Your task to perform on an android device: Open settings on Google Maps Image 0: 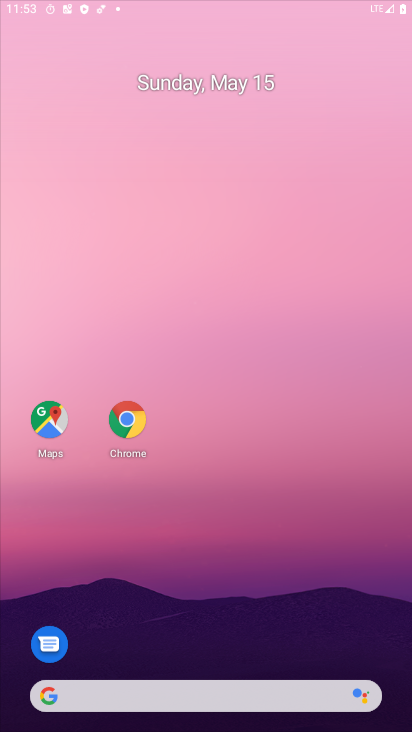
Step 0: click (306, 80)
Your task to perform on an android device: Open settings on Google Maps Image 1: 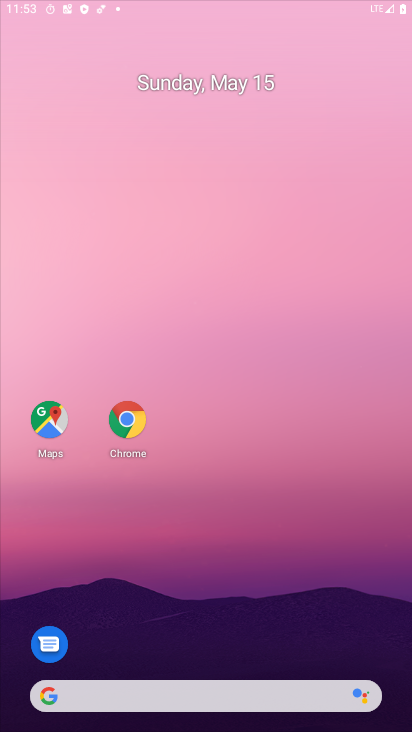
Step 1: drag from (202, 627) to (307, 124)
Your task to perform on an android device: Open settings on Google Maps Image 2: 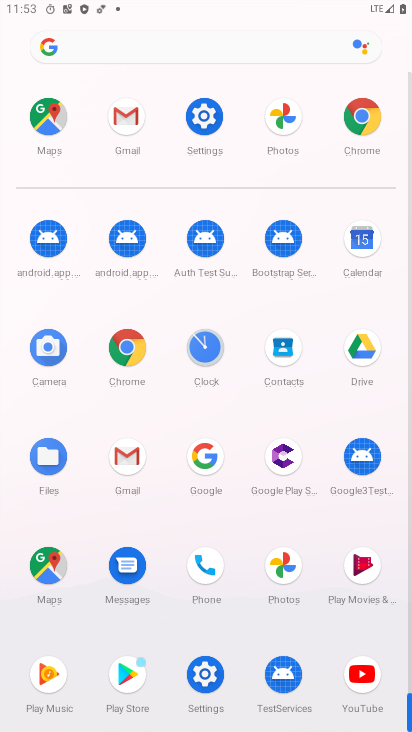
Step 2: drag from (202, 554) to (268, 226)
Your task to perform on an android device: Open settings on Google Maps Image 3: 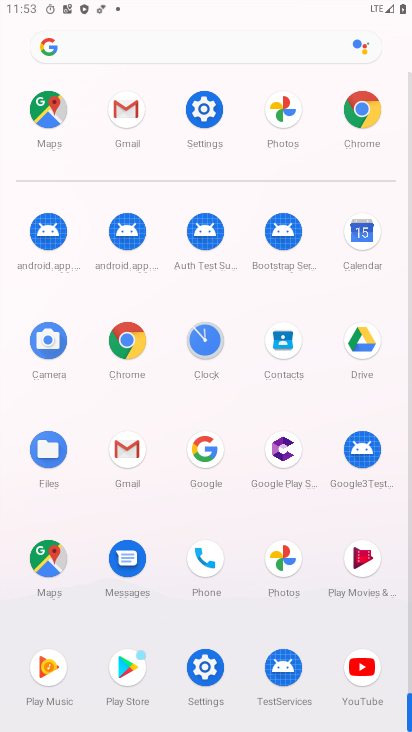
Step 3: drag from (234, 592) to (284, 305)
Your task to perform on an android device: Open settings on Google Maps Image 4: 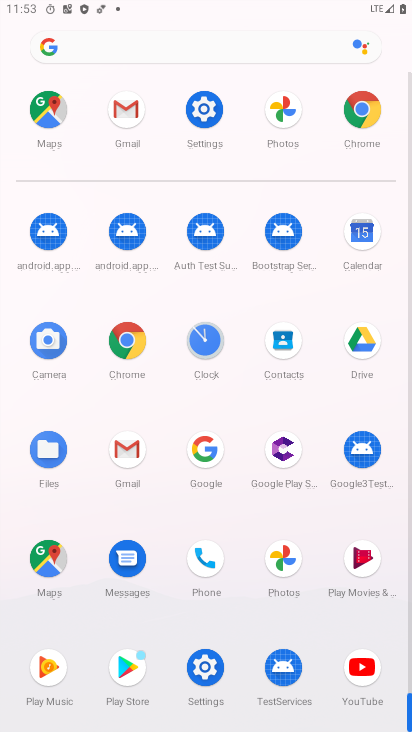
Step 4: click (56, 556)
Your task to perform on an android device: Open settings on Google Maps Image 5: 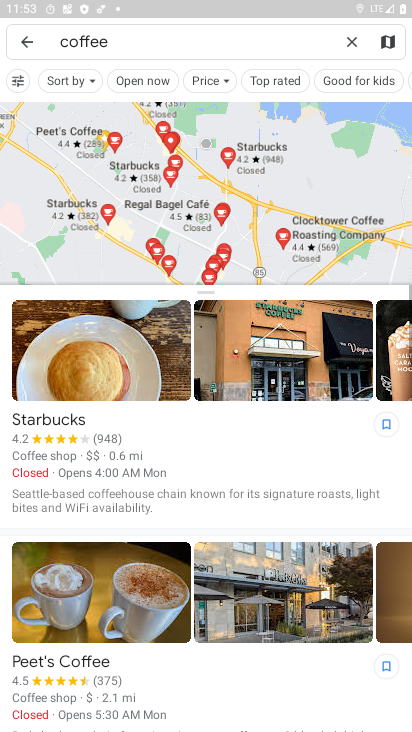
Step 5: drag from (151, 667) to (207, 263)
Your task to perform on an android device: Open settings on Google Maps Image 6: 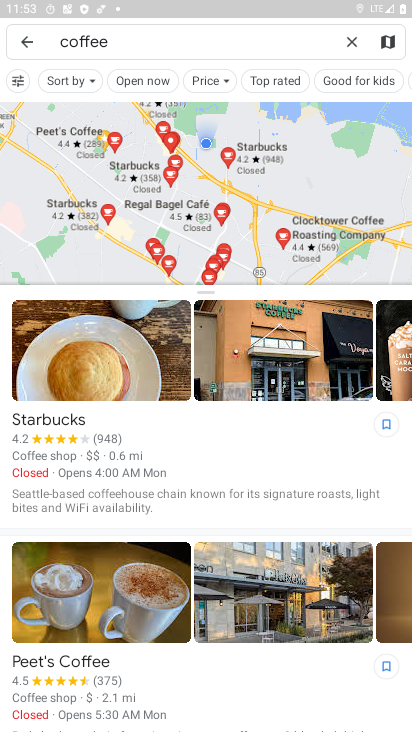
Step 6: click (33, 33)
Your task to perform on an android device: Open settings on Google Maps Image 7: 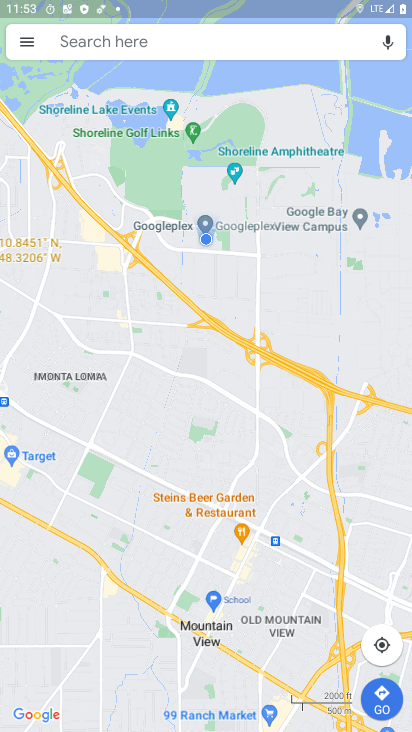
Step 7: click (33, 33)
Your task to perform on an android device: Open settings on Google Maps Image 8: 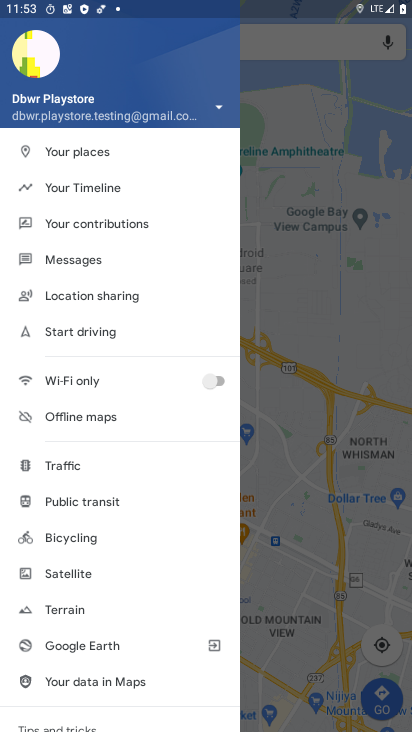
Step 8: drag from (111, 569) to (154, 203)
Your task to perform on an android device: Open settings on Google Maps Image 9: 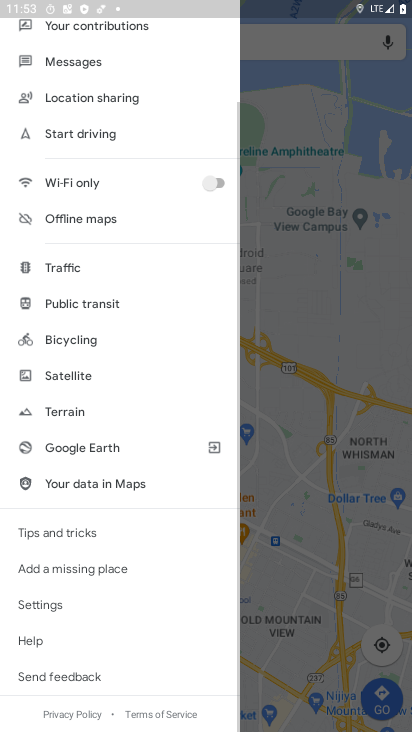
Step 9: click (69, 614)
Your task to perform on an android device: Open settings on Google Maps Image 10: 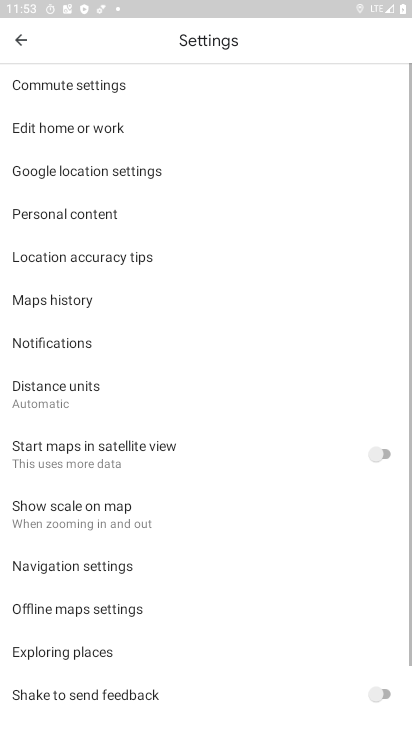
Step 10: task complete